Your task to perform on an android device: Open battery settings Image 0: 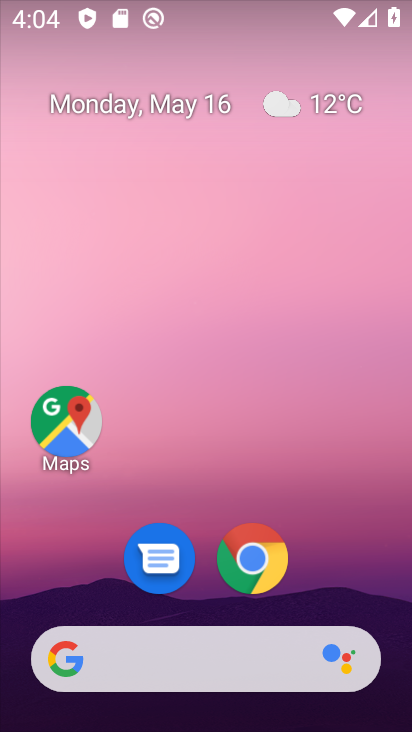
Step 0: drag from (314, 569) to (269, 124)
Your task to perform on an android device: Open battery settings Image 1: 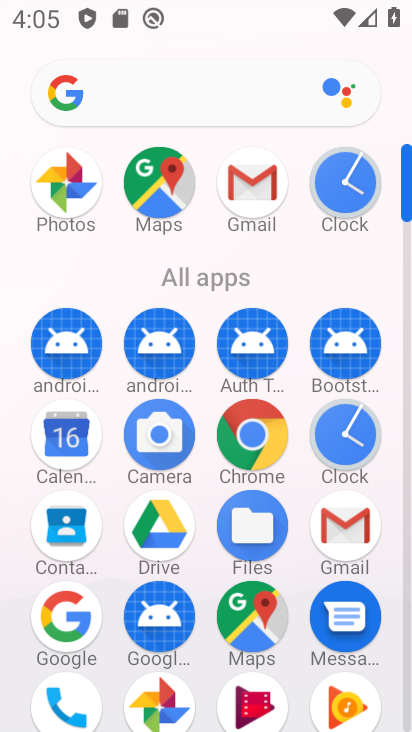
Step 1: drag from (321, 613) to (267, 256)
Your task to perform on an android device: Open battery settings Image 2: 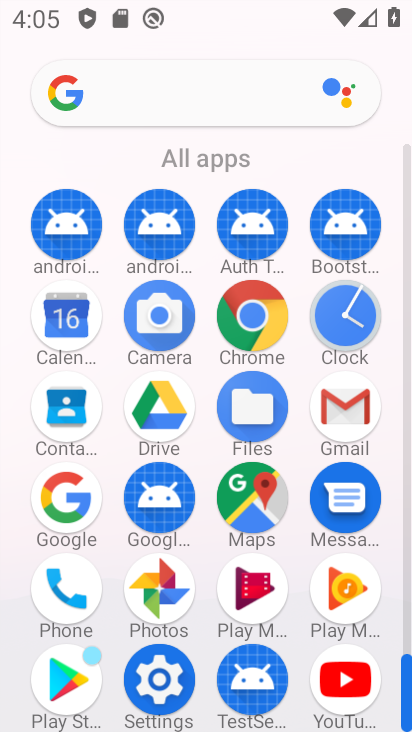
Step 2: click (167, 676)
Your task to perform on an android device: Open battery settings Image 3: 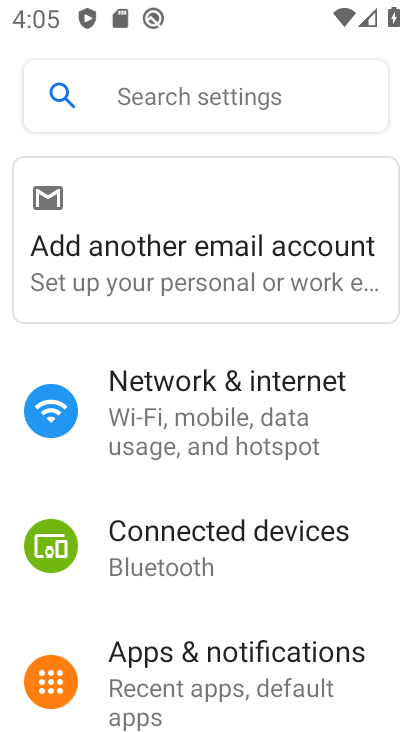
Step 3: drag from (165, 653) to (200, 337)
Your task to perform on an android device: Open battery settings Image 4: 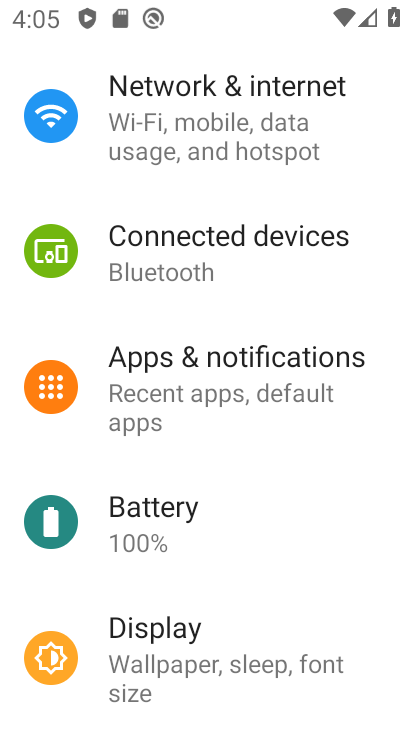
Step 4: click (213, 523)
Your task to perform on an android device: Open battery settings Image 5: 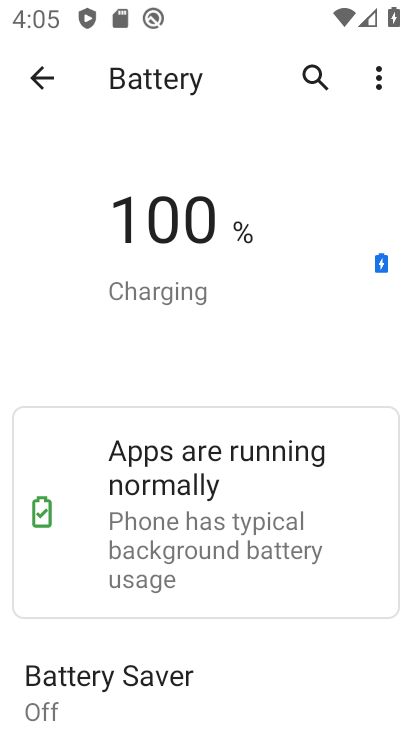
Step 5: task complete